Your task to perform on an android device: change notifications settings Image 0: 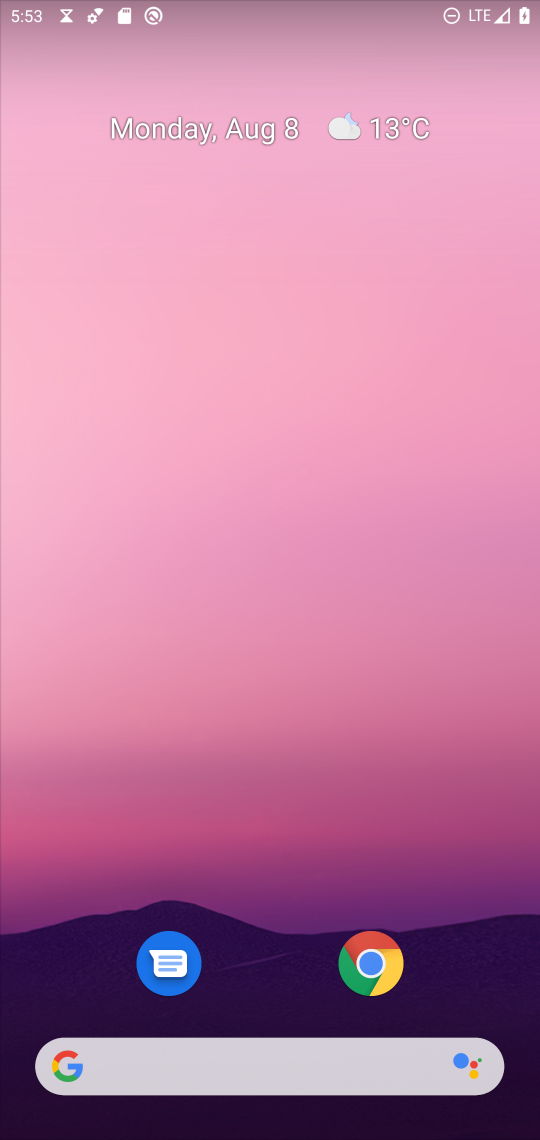
Step 0: press home button
Your task to perform on an android device: change notifications settings Image 1: 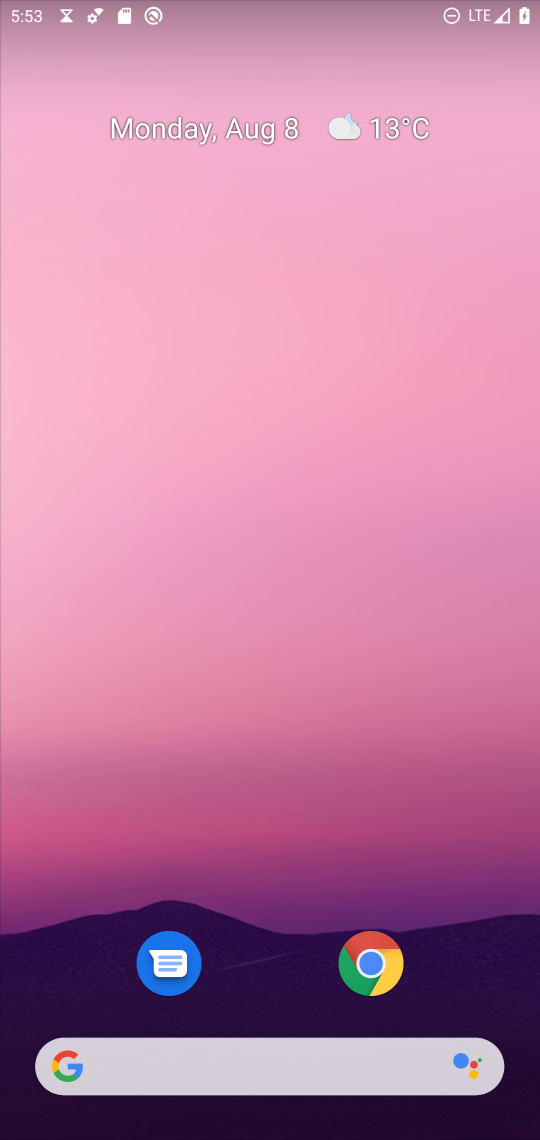
Step 1: drag from (255, 970) to (205, 138)
Your task to perform on an android device: change notifications settings Image 2: 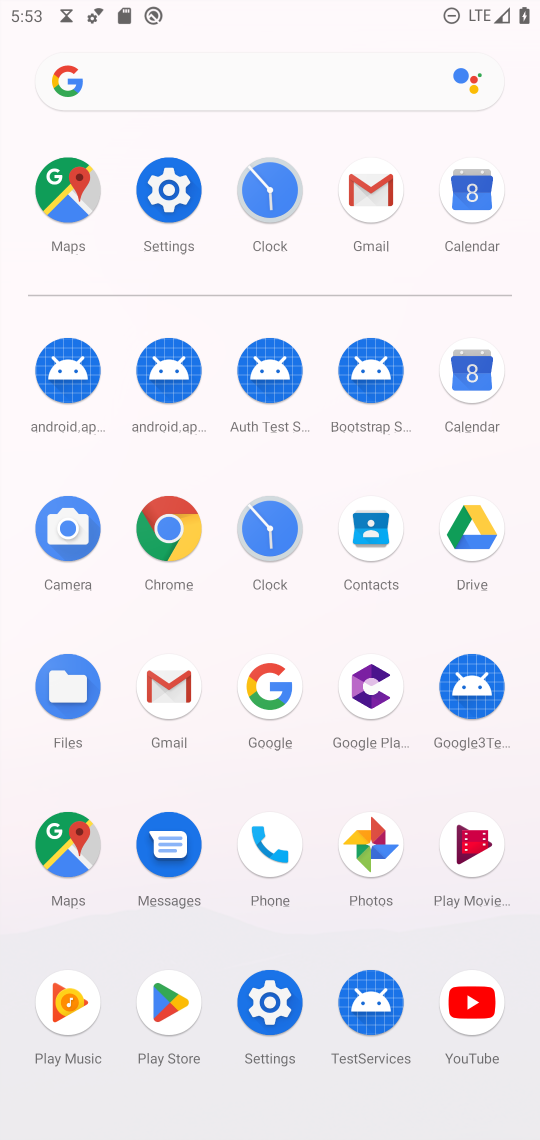
Step 2: click (166, 185)
Your task to perform on an android device: change notifications settings Image 3: 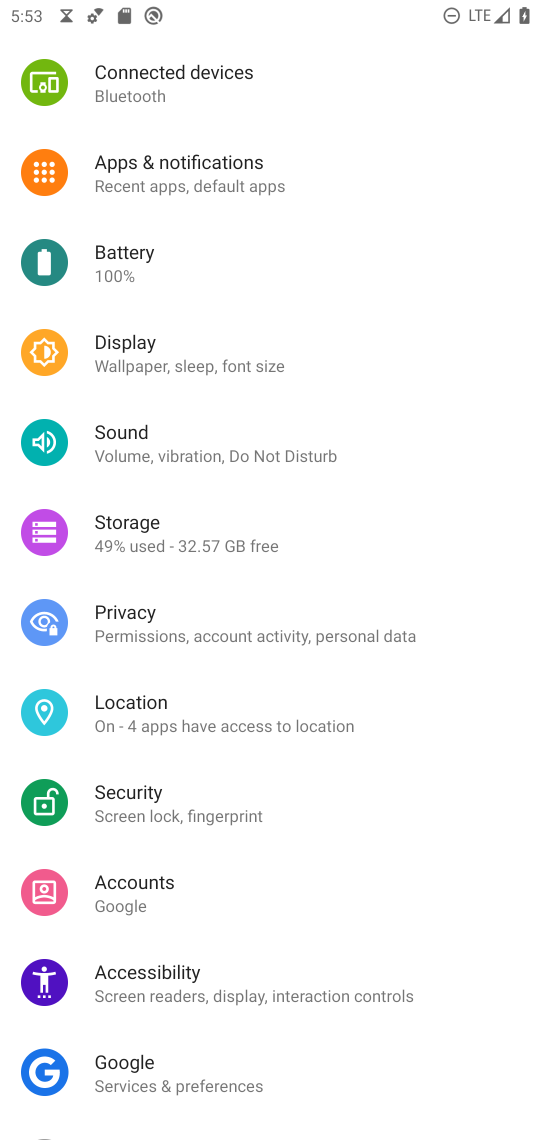
Step 3: click (192, 169)
Your task to perform on an android device: change notifications settings Image 4: 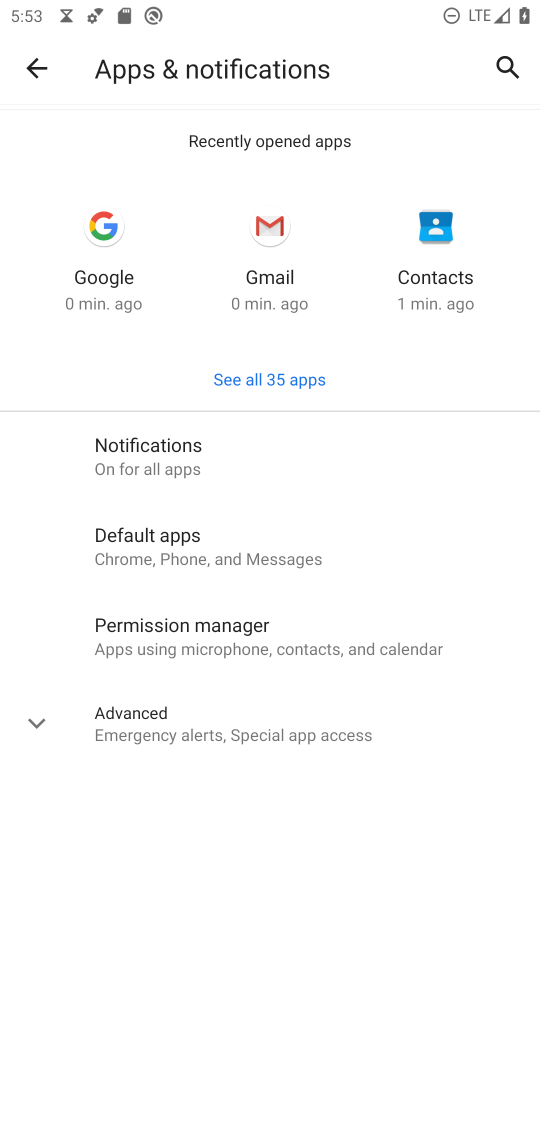
Step 4: click (205, 449)
Your task to perform on an android device: change notifications settings Image 5: 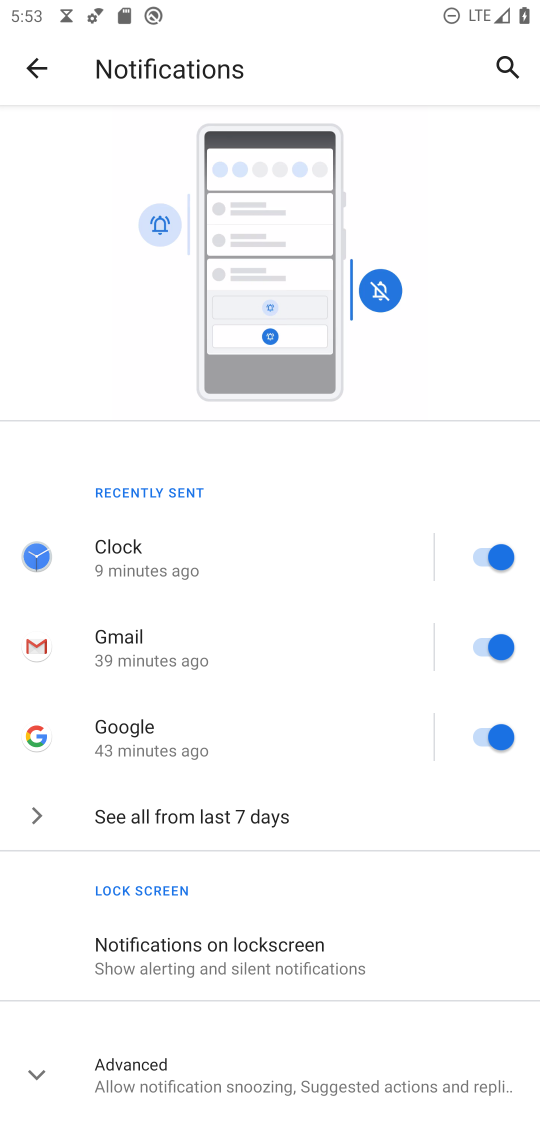
Step 5: click (203, 822)
Your task to perform on an android device: change notifications settings Image 6: 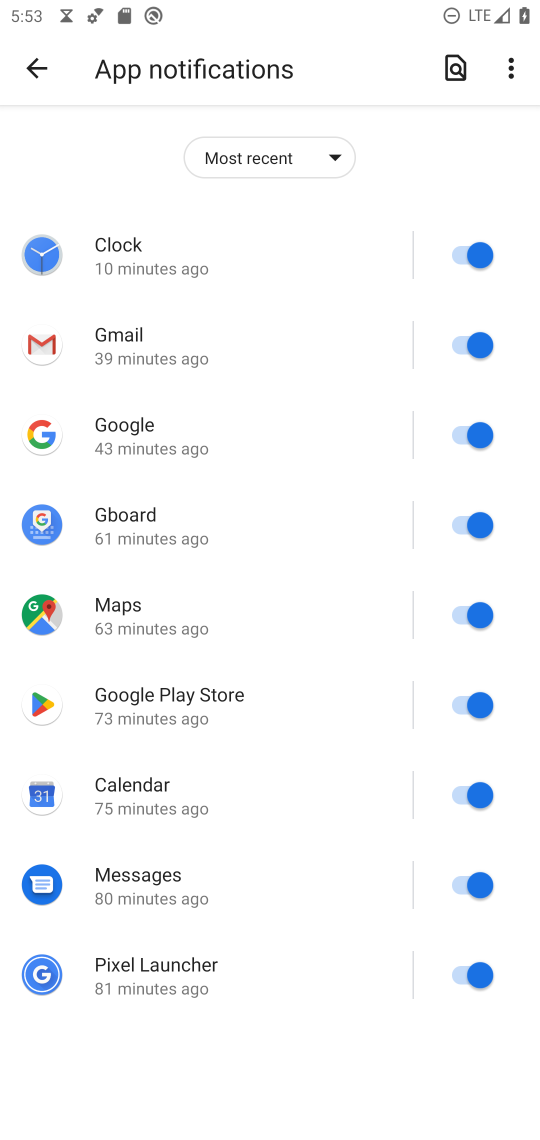
Step 6: click (467, 268)
Your task to perform on an android device: change notifications settings Image 7: 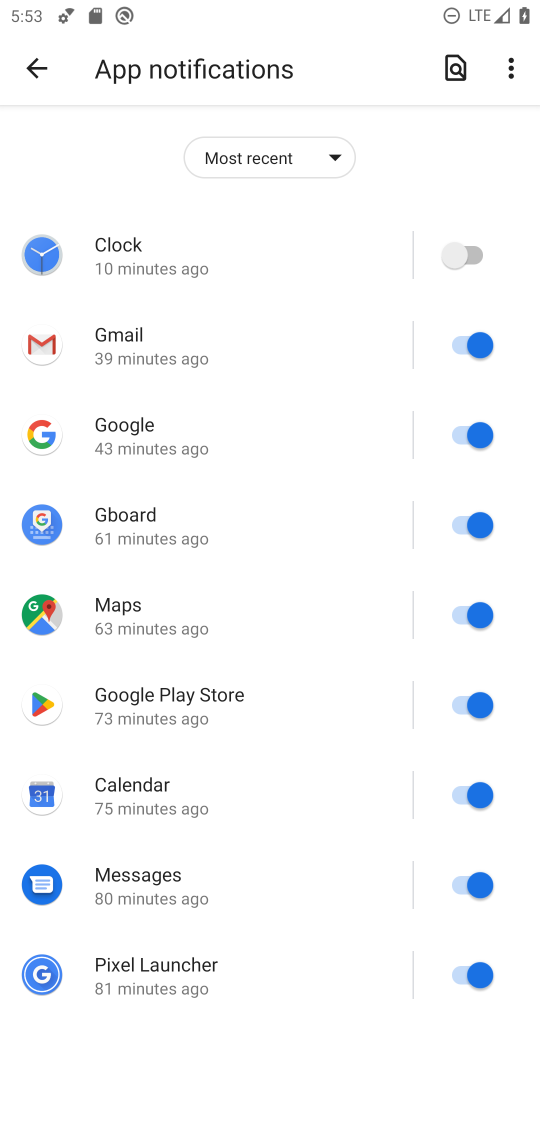
Step 7: click (476, 356)
Your task to perform on an android device: change notifications settings Image 8: 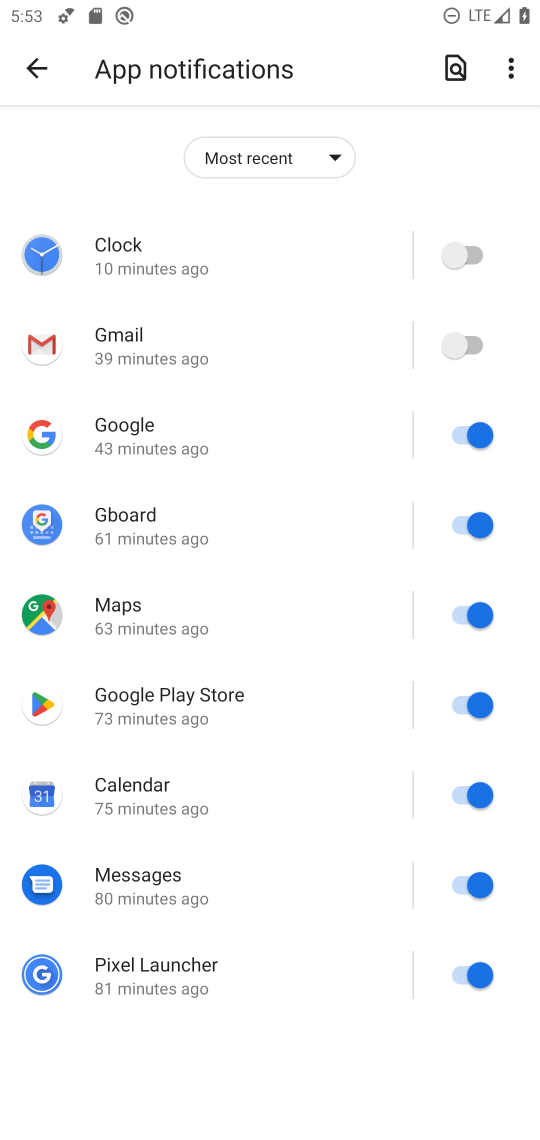
Step 8: click (476, 430)
Your task to perform on an android device: change notifications settings Image 9: 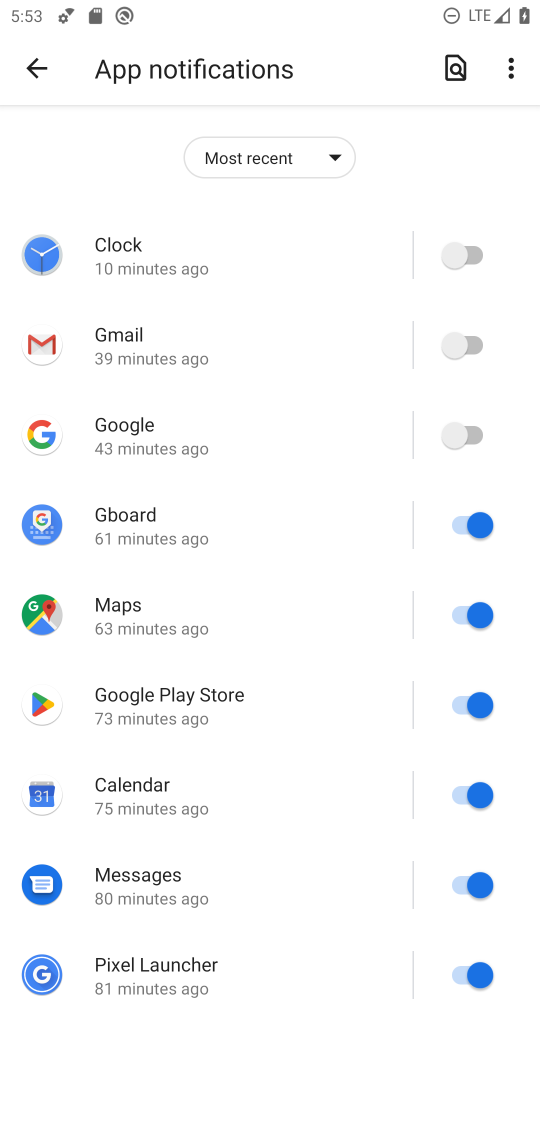
Step 9: click (478, 532)
Your task to perform on an android device: change notifications settings Image 10: 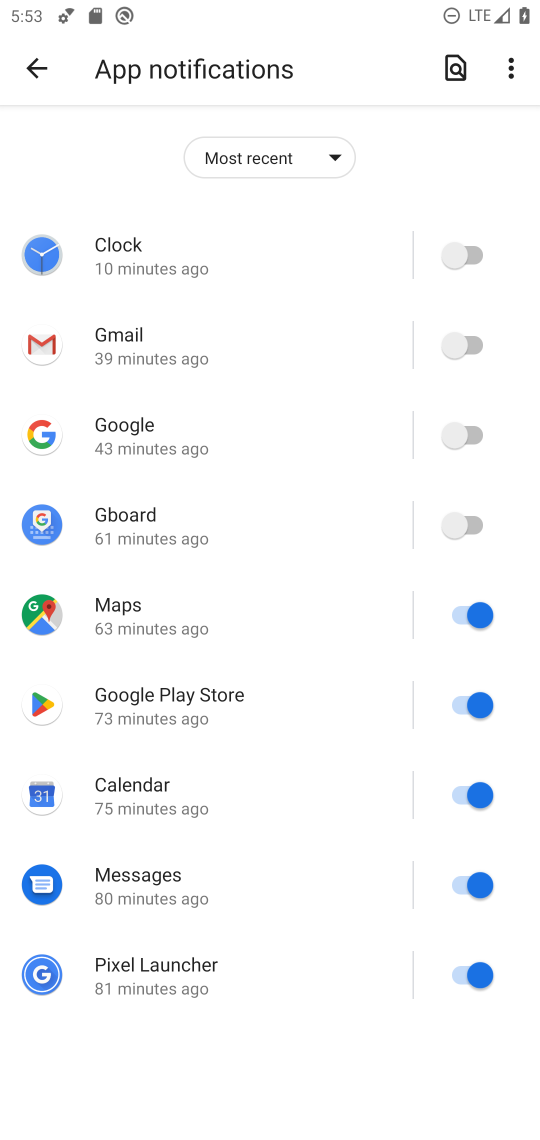
Step 10: click (478, 621)
Your task to perform on an android device: change notifications settings Image 11: 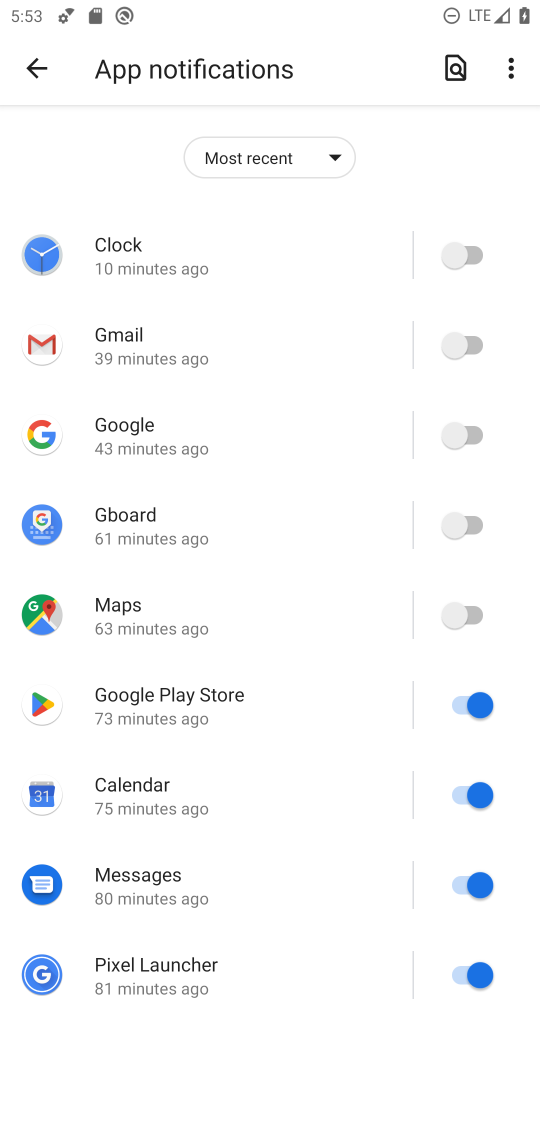
Step 11: click (478, 705)
Your task to perform on an android device: change notifications settings Image 12: 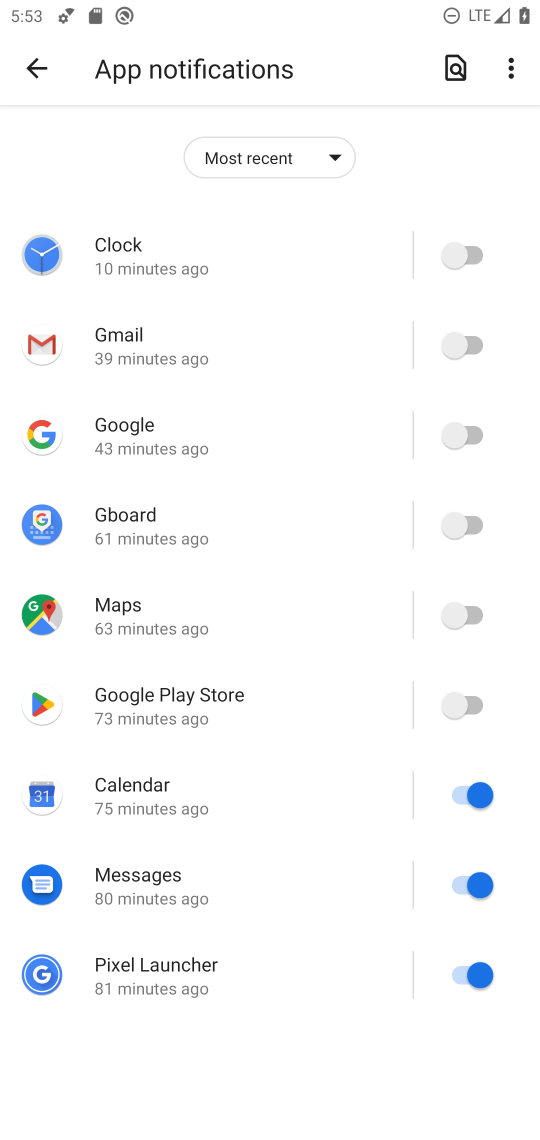
Step 12: click (481, 788)
Your task to perform on an android device: change notifications settings Image 13: 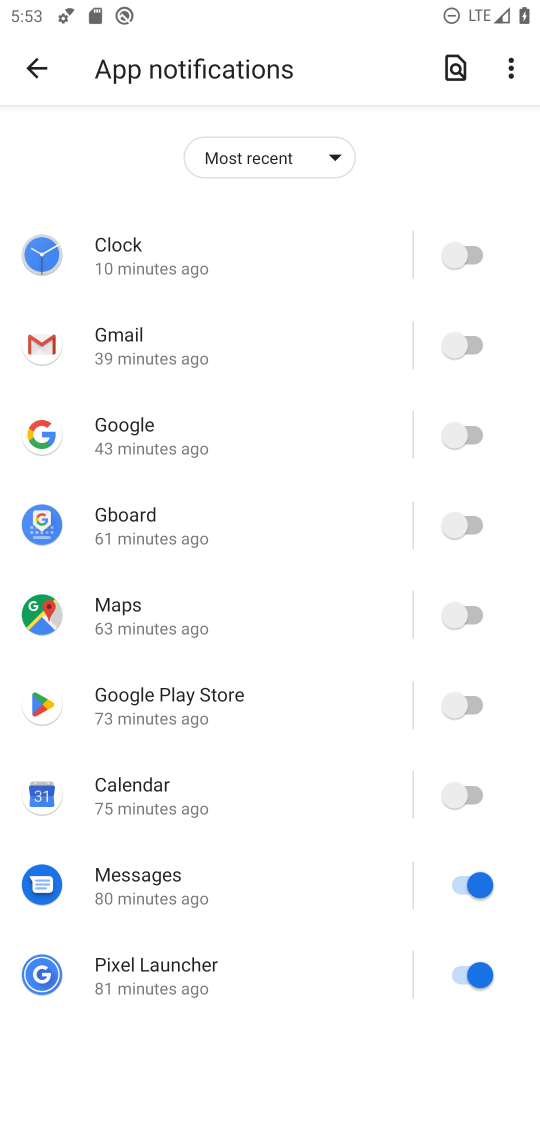
Step 13: click (481, 858)
Your task to perform on an android device: change notifications settings Image 14: 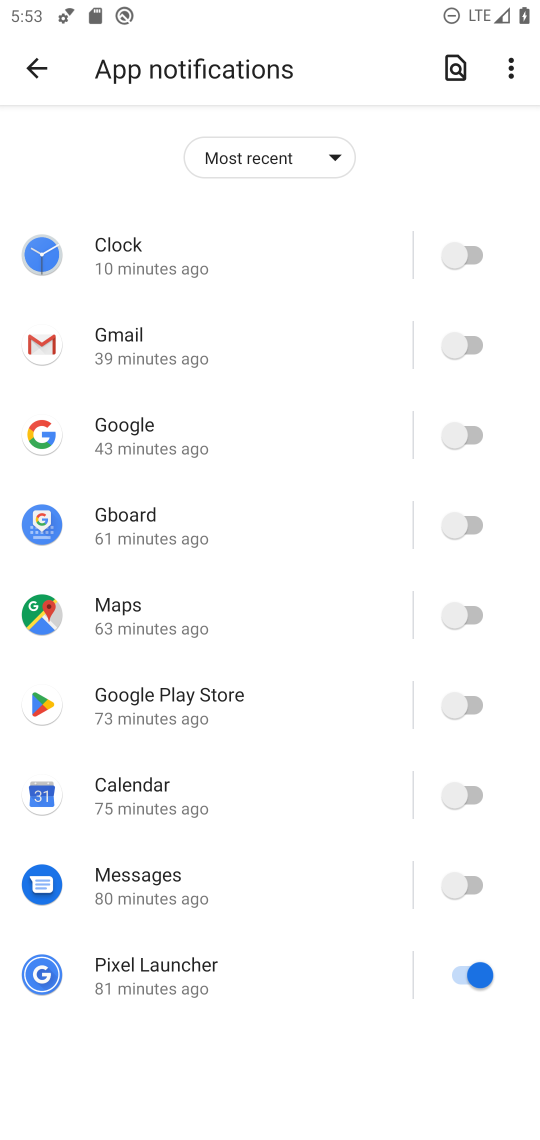
Step 14: click (484, 985)
Your task to perform on an android device: change notifications settings Image 15: 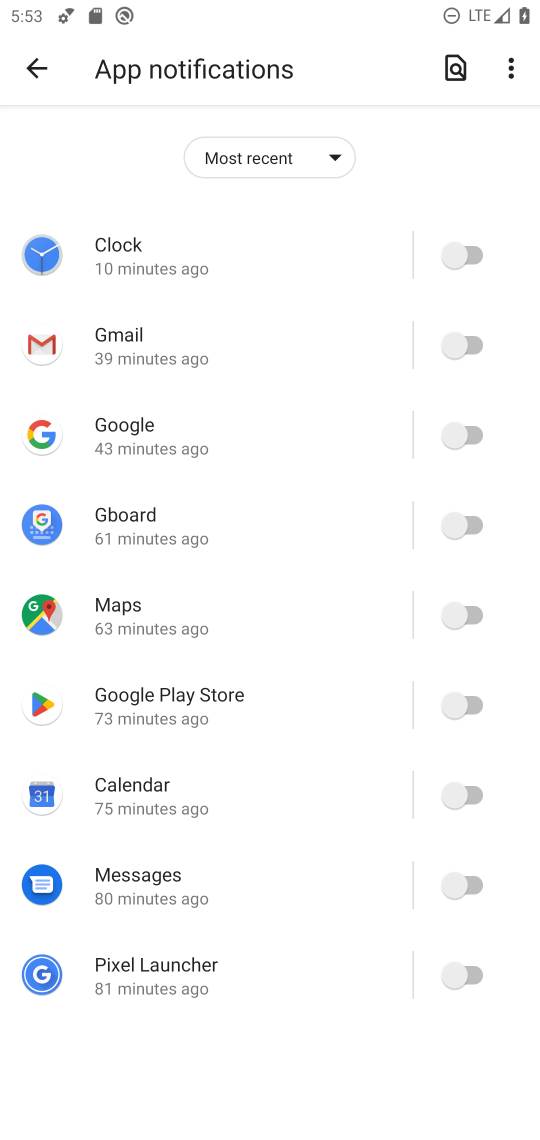
Step 15: click (24, 77)
Your task to perform on an android device: change notifications settings Image 16: 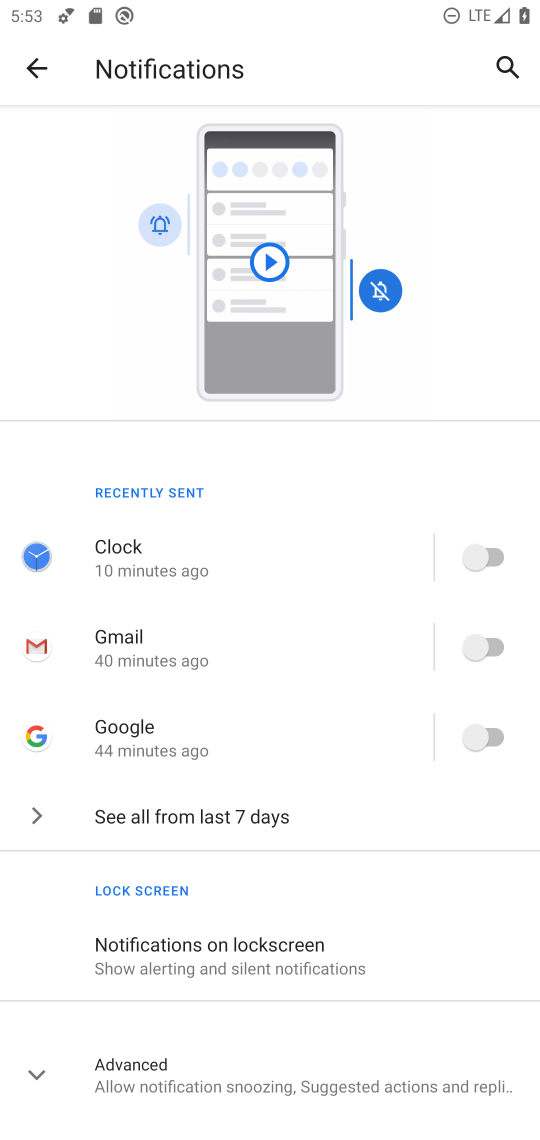
Step 16: click (319, 943)
Your task to perform on an android device: change notifications settings Image 17: 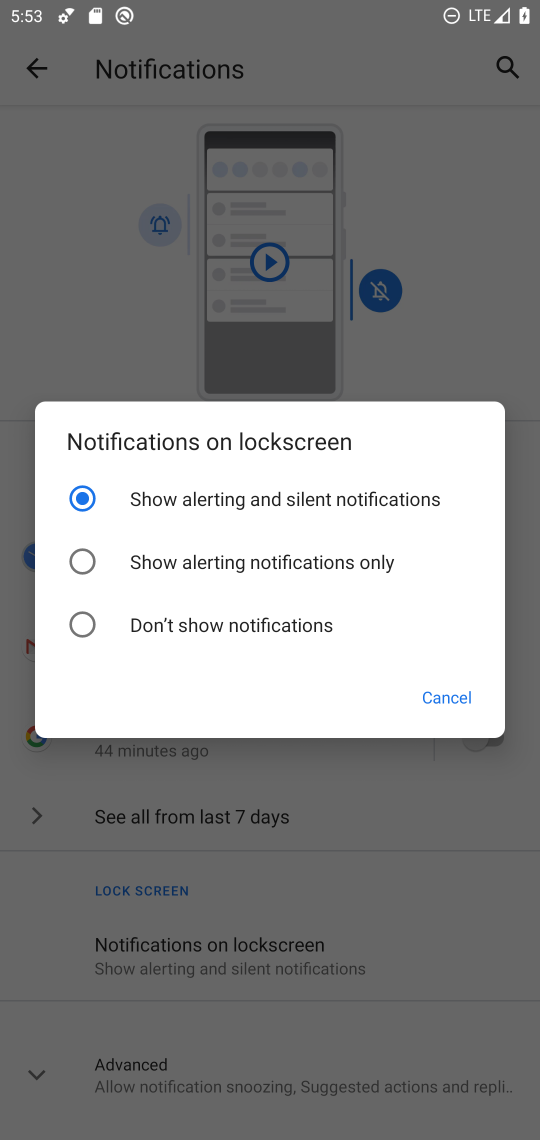
Step 17: click (165, 567)
Your task to perform on an android device: change notifications settings Image 18: 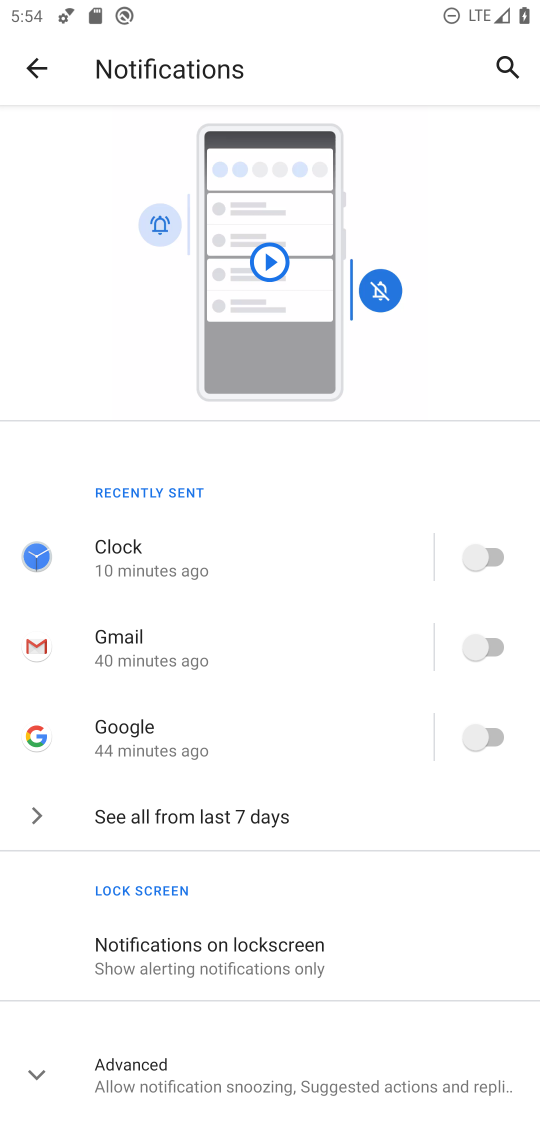
Step 18: click (287, 1072)
Your task to perform on an android device: change notifications settings Image 19: 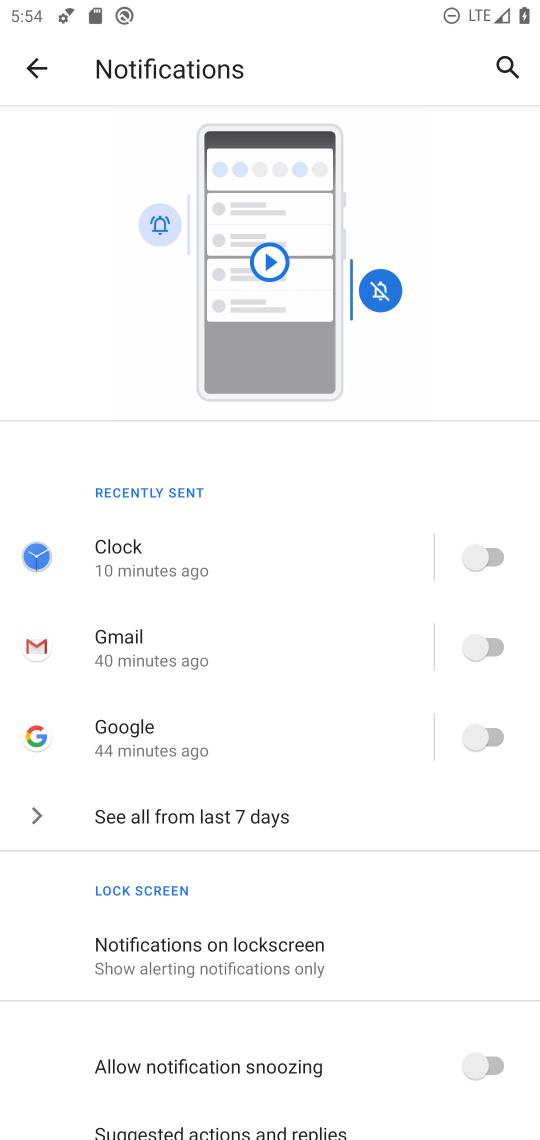
Step 19: drag from (277, 940) to (277, 259)
Your task to perform on an android device: change notifications settings Image 20: 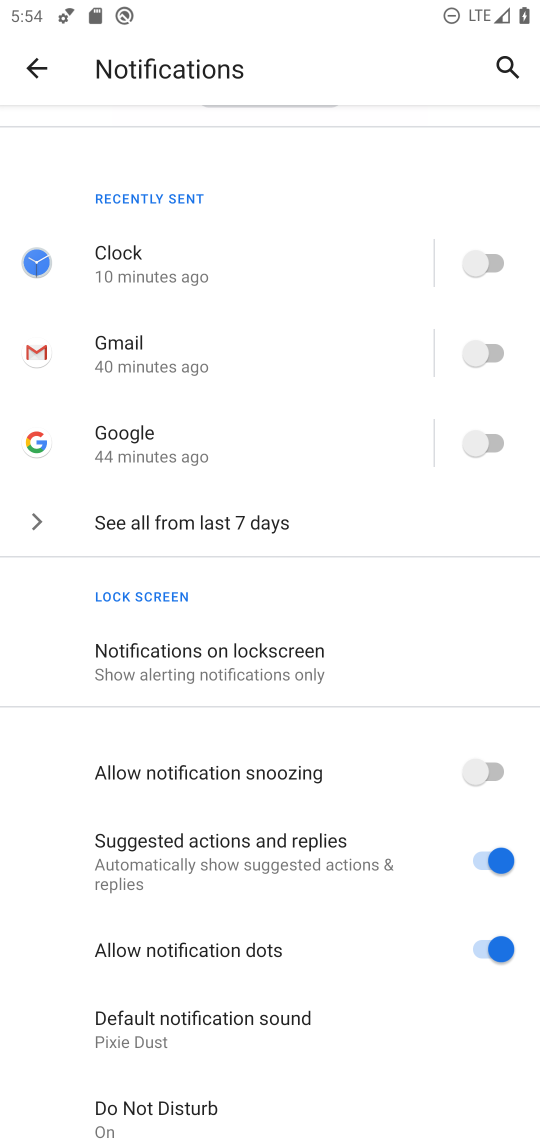
Step 20: click (501, 765)
Your task to perform on an android device: change notifications settings Image 21: 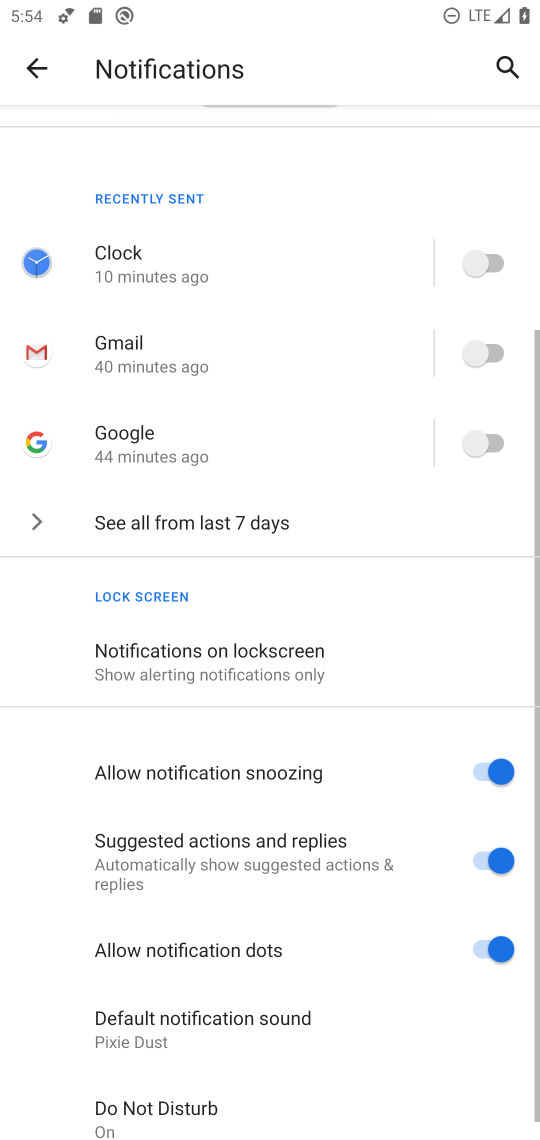
Step 21: click (502, 876)
Your task to perform on an android device: change notifications settings Image 22: 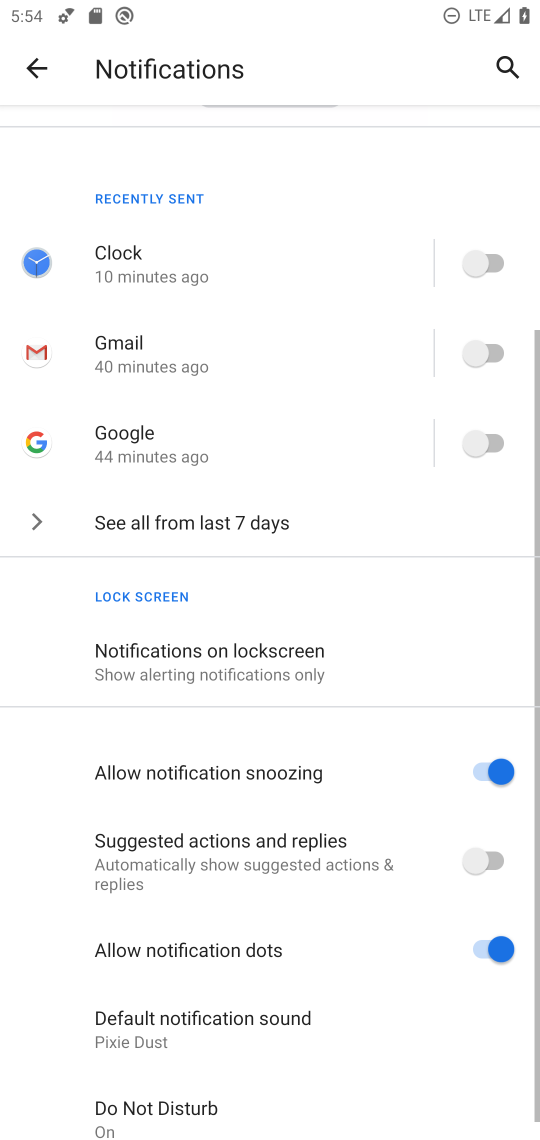
Step 22: click (500, 940)
Your task to perform on an android device: change notifications settings Image 23: 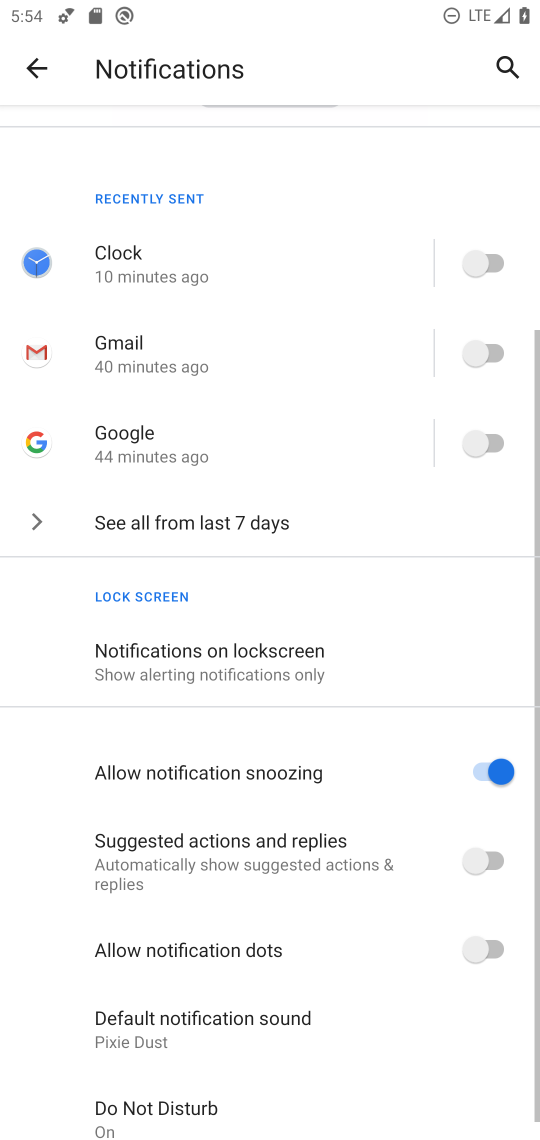
Step 23: task complete